Your task to perform on an android device: Check the weather Image 0: 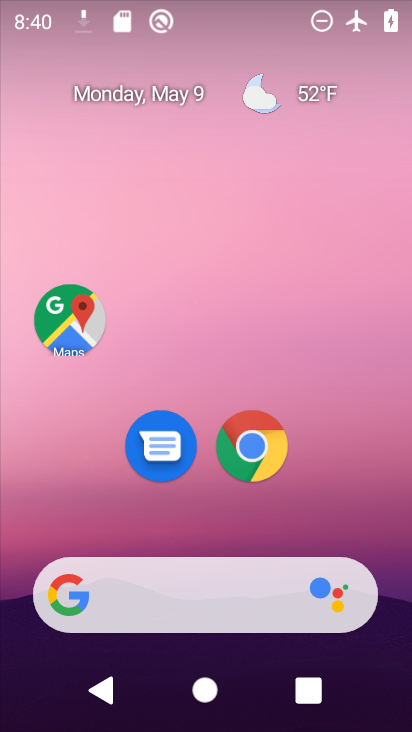
Step 0: click (298, 91)
Your task to perform on an android device: Check the weather Image 1: 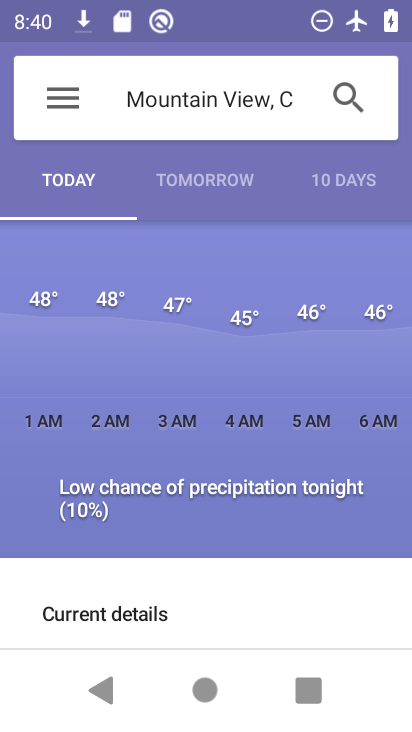
Step 1: task complete